Your task to perform on an android device: check storage Image 0: 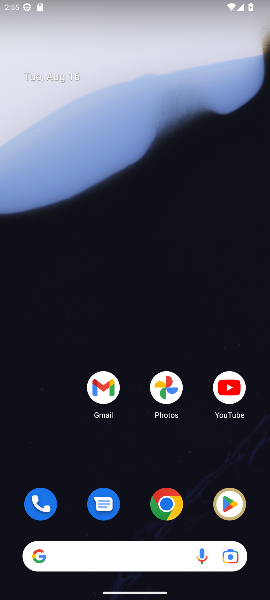
Step 0: drag from (104, 509) to (121, 337)
Your task to perform on an android device: check storage Image 1: 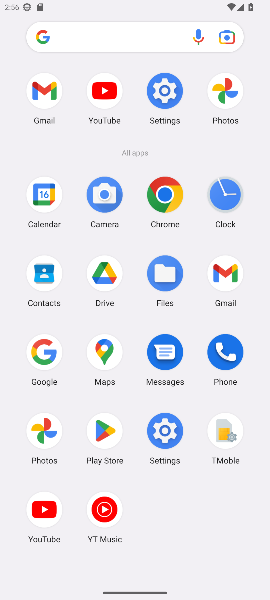
Step 1: click (163, 438)
Your task to perform on an android device: check storage Image 2: 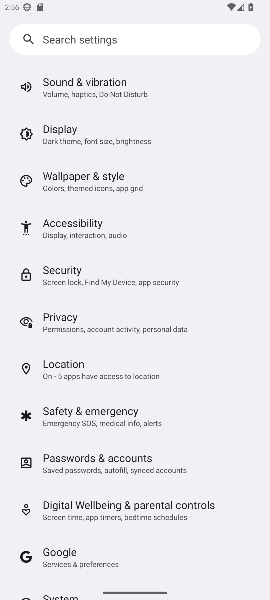
Step 2: drag from (80, 227) to (136, 488)
Your task to perform on an android device: check storage Image 3: 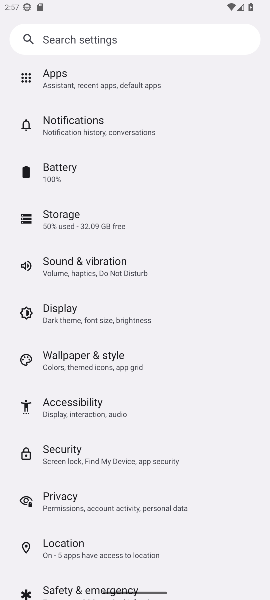
Step 3: click (69, 217)
Your task to perform on an android device: check storage Image 4: 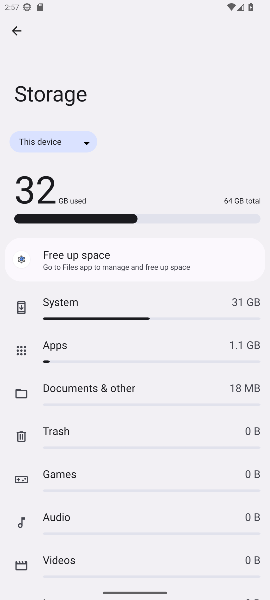
Step 4: task complete